Your task to perform on an android device: Clear the cart on costco. Image 0: 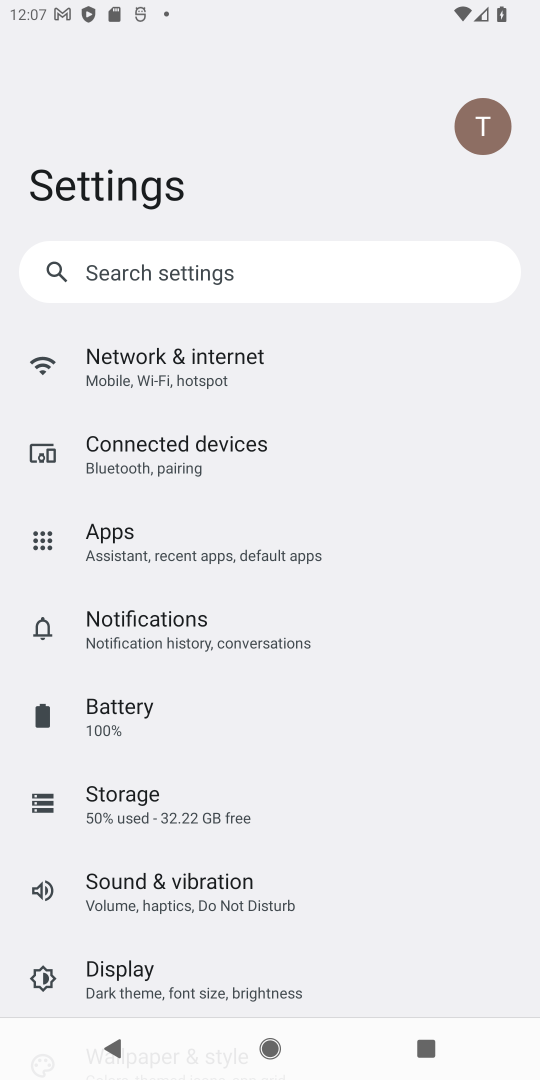
Step 0: task complete